Your task to perform on an android device: open a new tab in the chrome app Image 0: 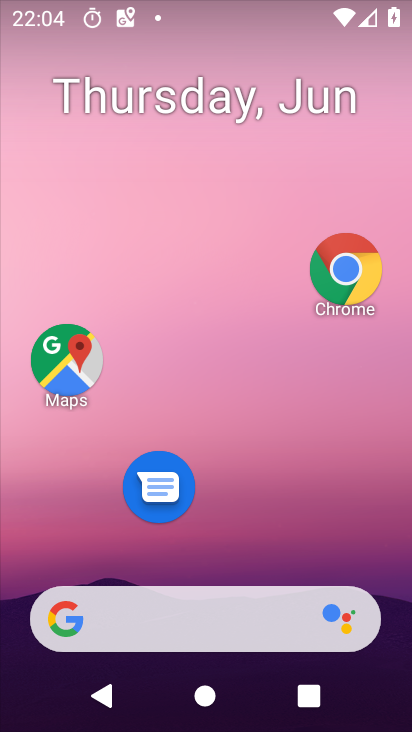
Step 0: drag from (252, 502) to (302, 266)
Your task to perform on an android device: open a new tab in the chrome app Image 1: 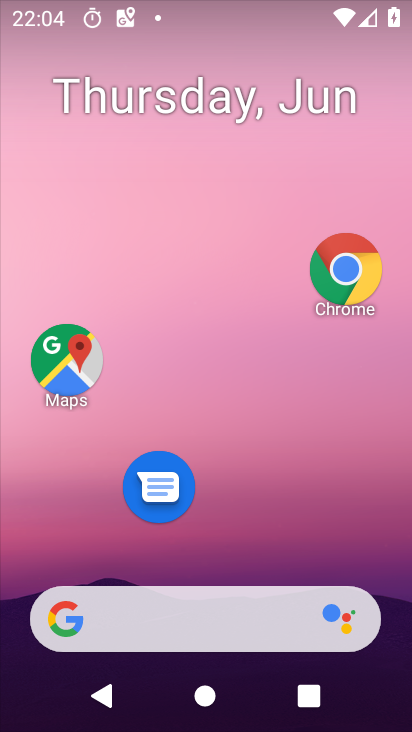
Step 1: click (326, 270)
Your task to perform on an android device: open a new tab in the chrome app Image 2: 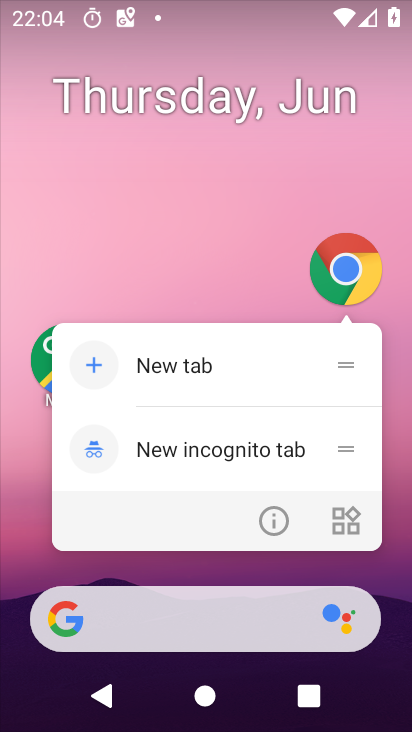
Step 2: click (276, 513)
Your task to perform on an android device: open a new tab in the chrome app Image 3: 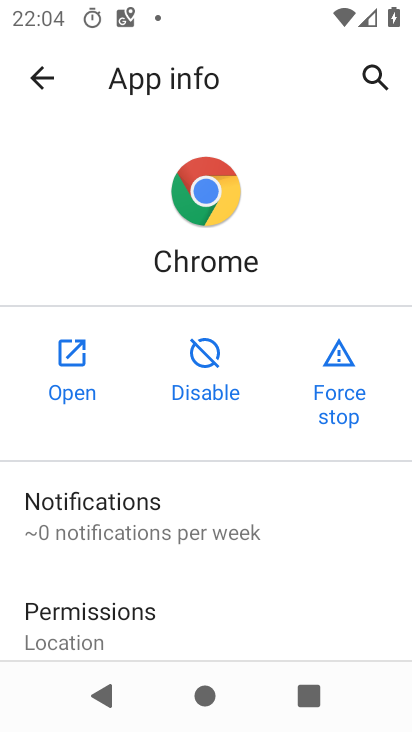
Step 3: click (67, 351)
Your task to perform on an android device: open a new tab in the chrome app Image 4: 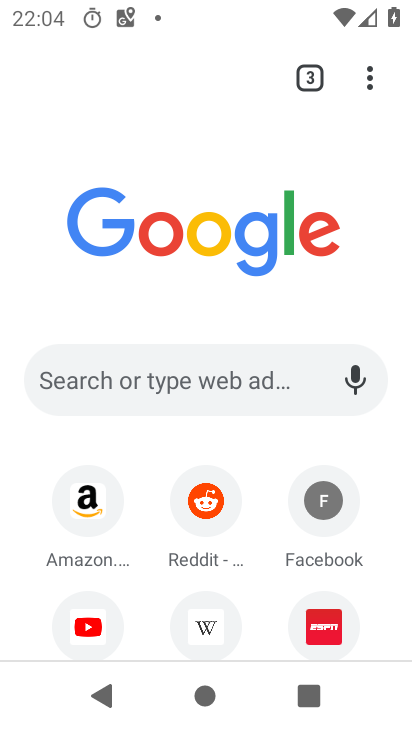
Step 4: task complete